Your task to perform on an android device: Add dell xps to the cart on target.com, then select checkout. Image 0: 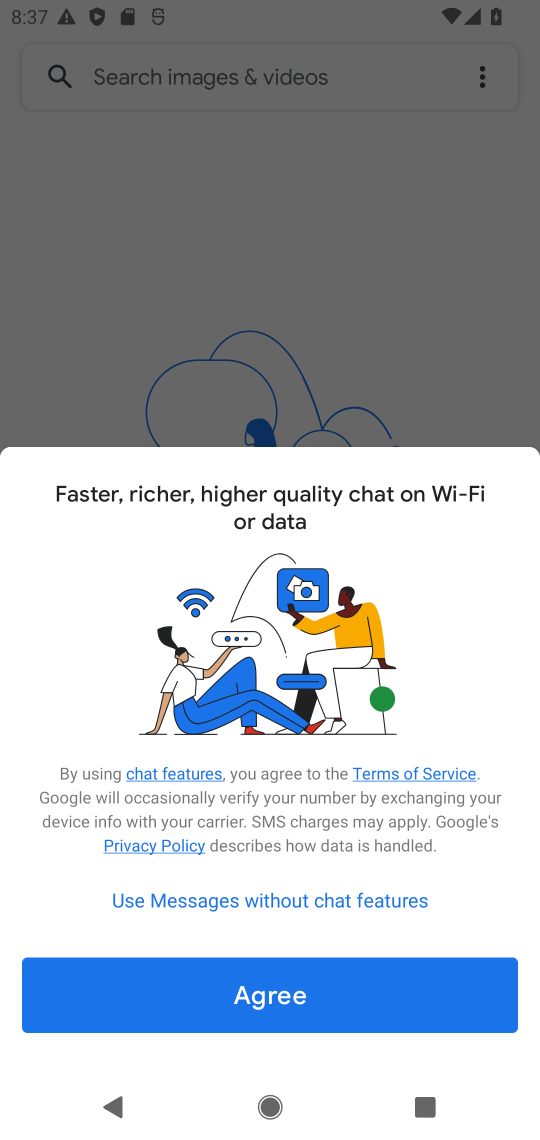
Step 0: press home button
Your task to perform on an android device: Add dell xps to the cart on target.com, then select checkout. Image 1: 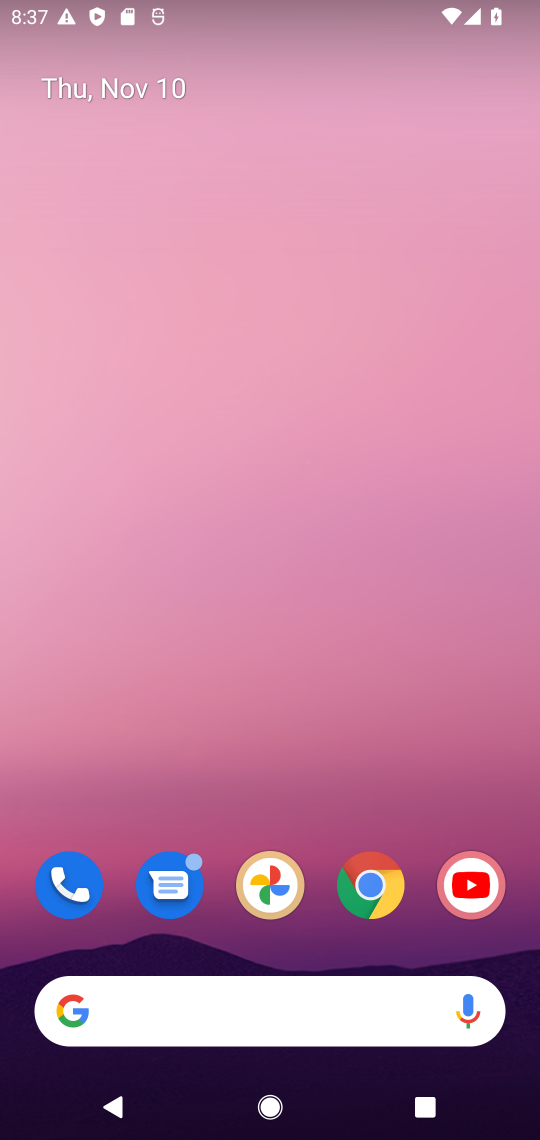
Step 1: click (385, 883)
Your task to perform on an android device: Add dell xps to the cart on target.com, then select checkout. Image 2: 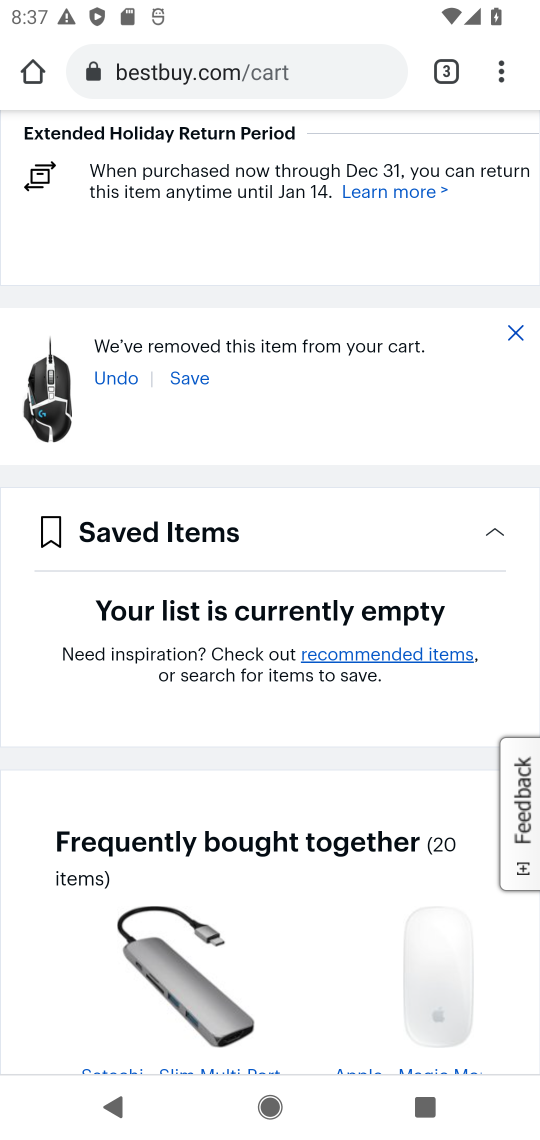
Step 2: click (447, 66)
Your task to perform on an android device: Add dell xps to the cart on target.com, then select checkout. Image 3: 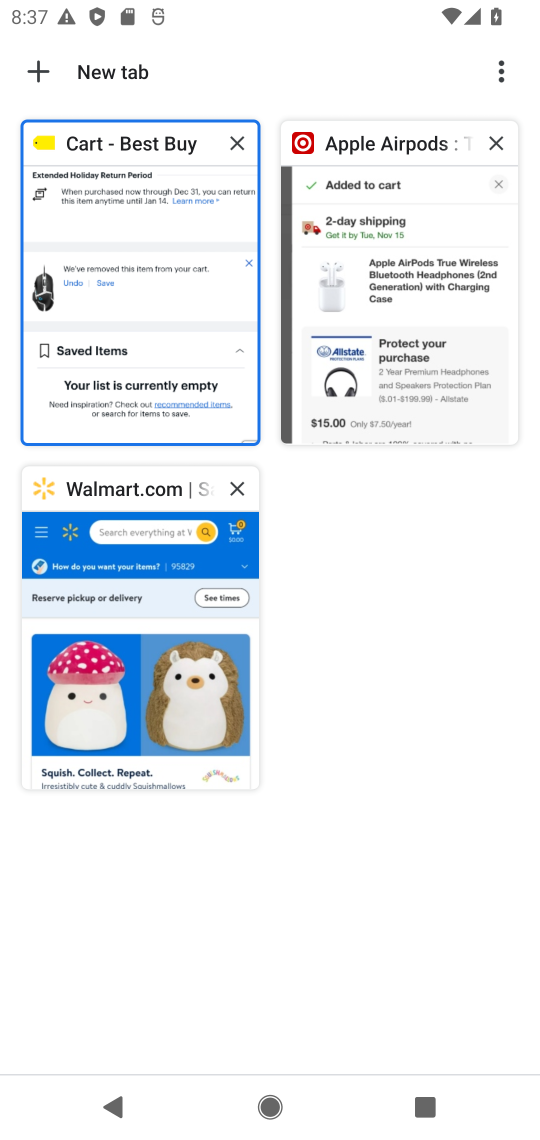
Step 3: click (382, 313)
Your task to perform on an android device: Add dell xps to the cart on target.com, then select checkout. Image 4: 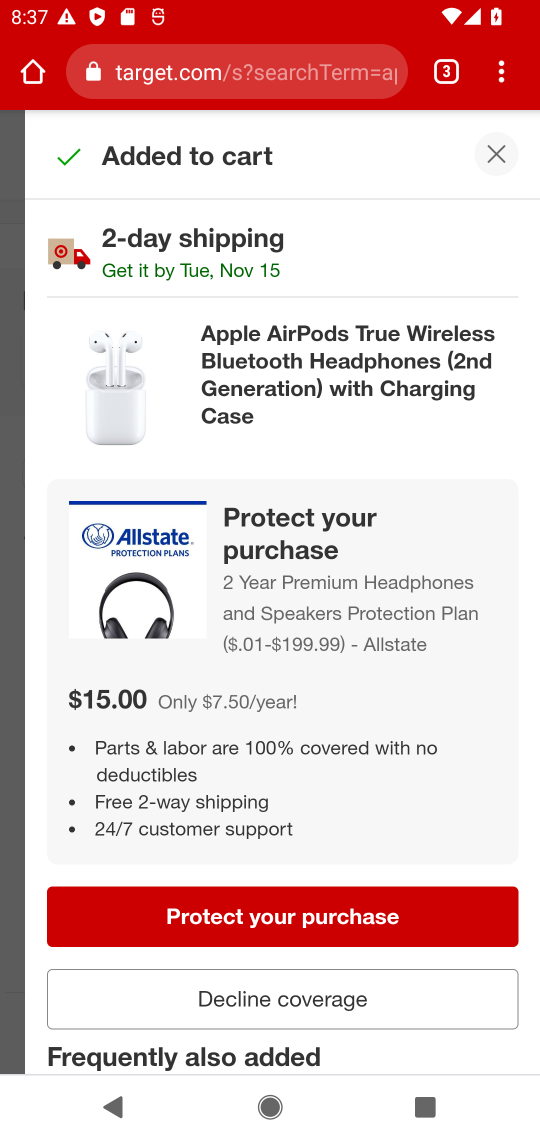
Step 4: click (491, 140)
Your task to perform on an android device: Add dell xps to the cart on target.com, then select checkout. Image 5: 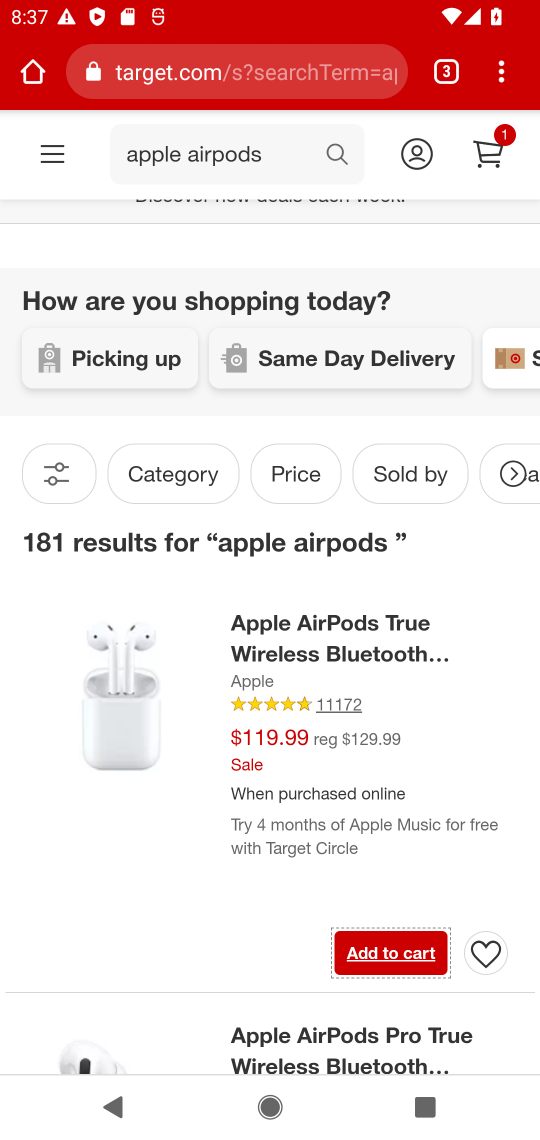
Step 5: click (198, 154)
Your task to perform on an android device: Add dell xps to the cart on target.com, then select checkout. Image 6: 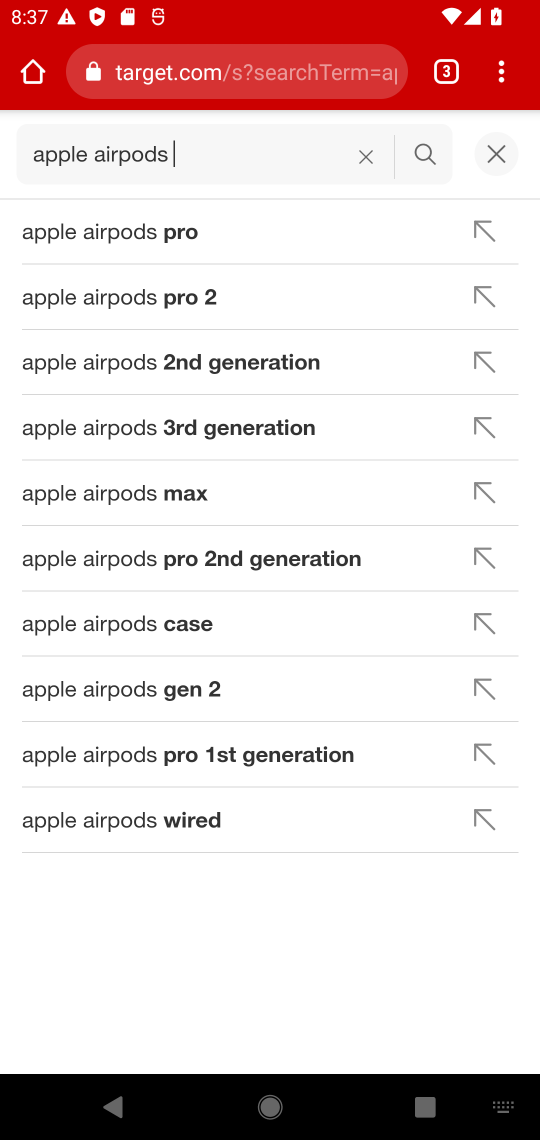
Step 6: click (364, 153)
Your task to perform on an android device: Add dell xps to the cart on target.com, then select checkout. Image 7: 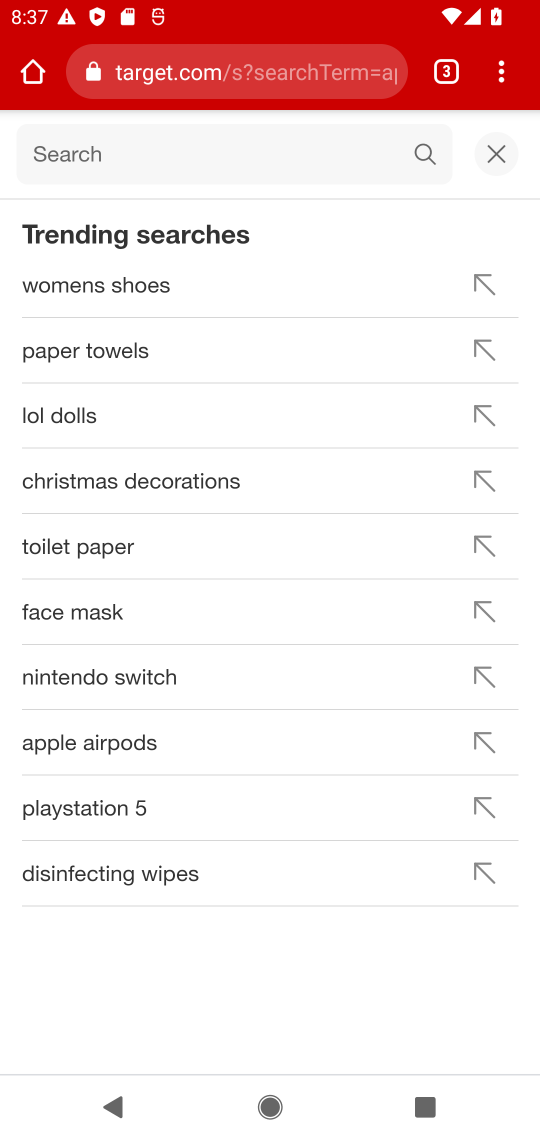
Step 7: type "dell xps "
Your task to perform on an android device: Add dell xps to the cart on target.com, then select checkout. Image 8: 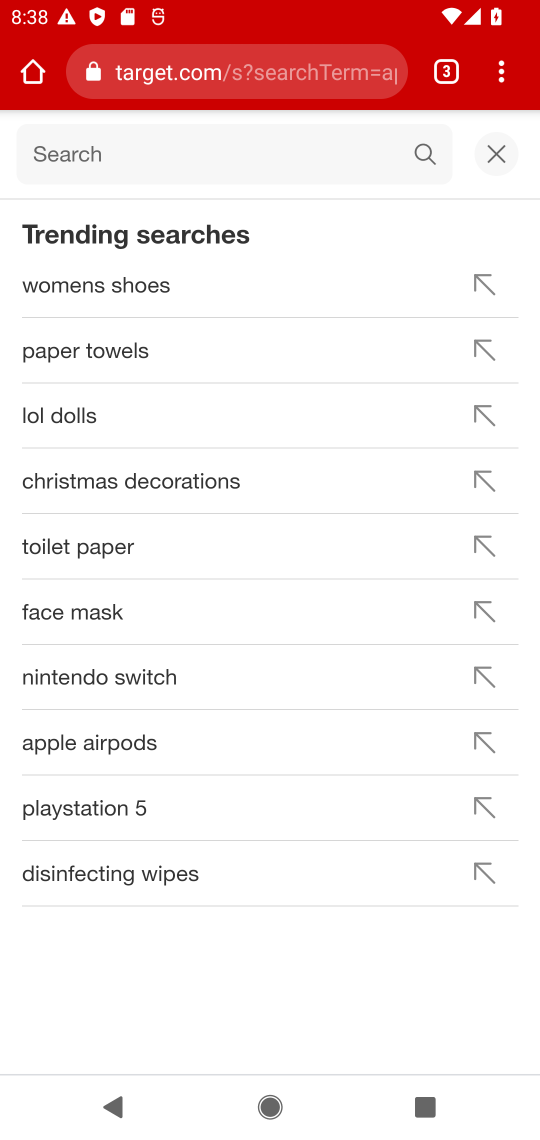
Step 8: click (132, 155)
Your task to perform on an android device: Add dell xps to the cart on target.com, then select checkout. Image 9: 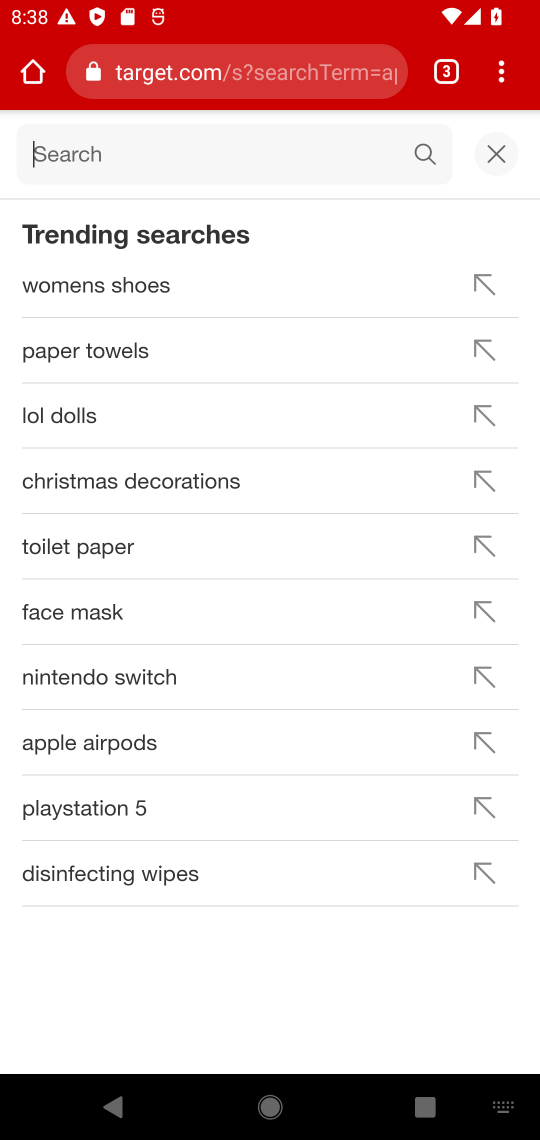
Step 9: type "dell xps "
Your task to perform on an android device: Add dell xps to the cart on target.com, then select checkout. Image 10: 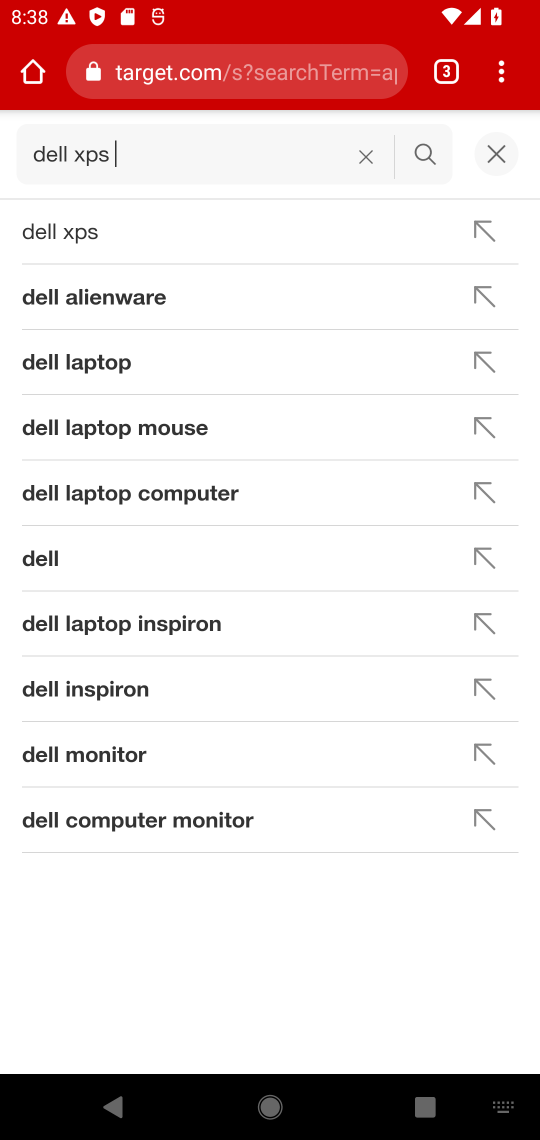
Step 10: click (64, 229)
Your task to perform on an android device: Add dell xps to the cart on target.com, then select checkout. Image 11: 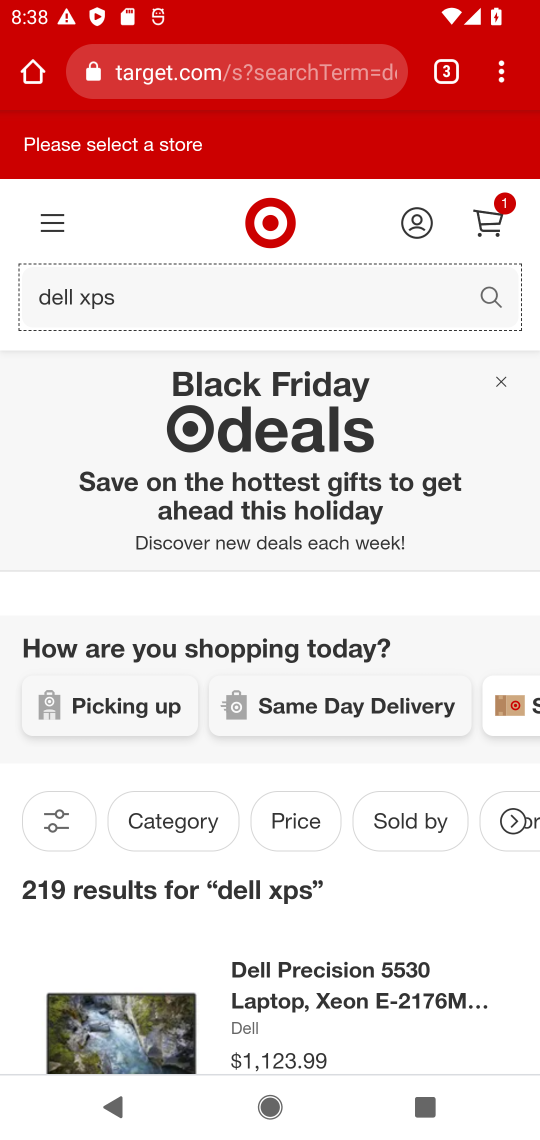
Step 11: drag from (336, 925) to (460, 236)
Your task to perform on an android device: Add dell xps to the cart on target.com, then select checkout. Image 12: 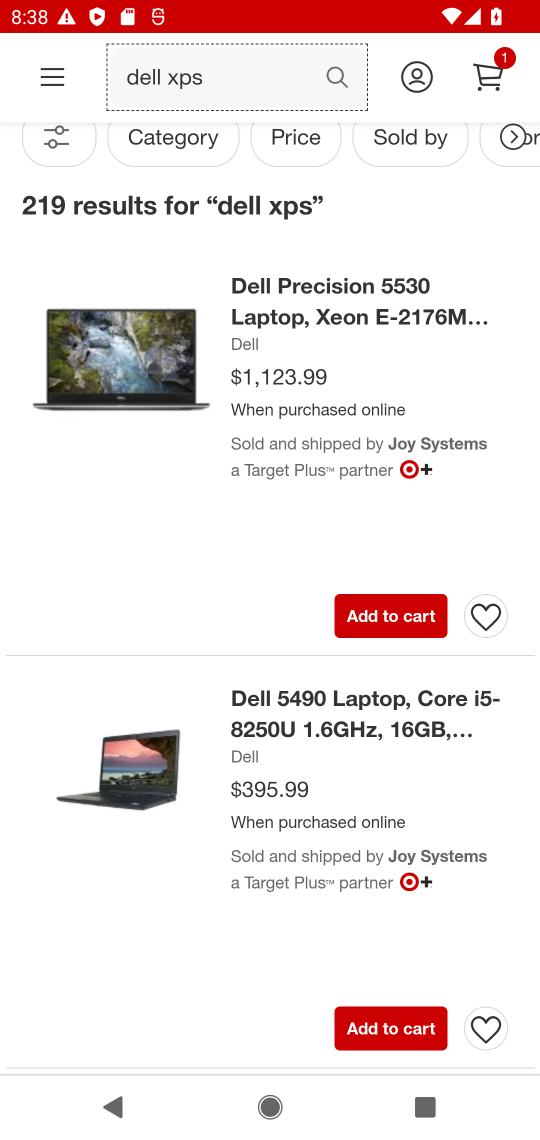
Step 12: click (404, 608)
Your task to perform on an android device: Add dell xps to the cart on target.com, then select checkout. Image 13: 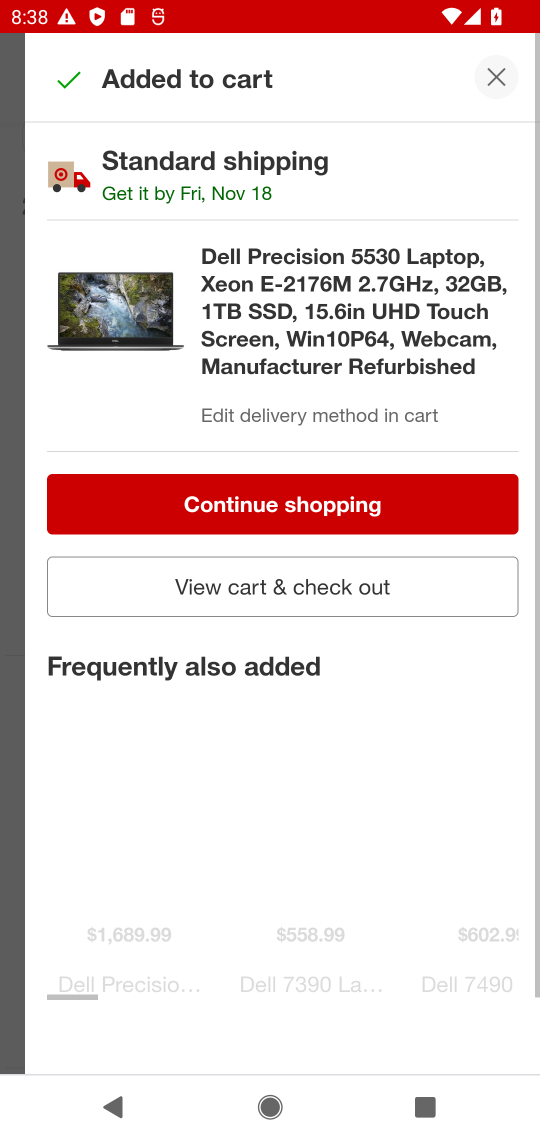
Step 13: task complete